Your task to perform on an android device: toggle javascript in the chrome app Image 0: 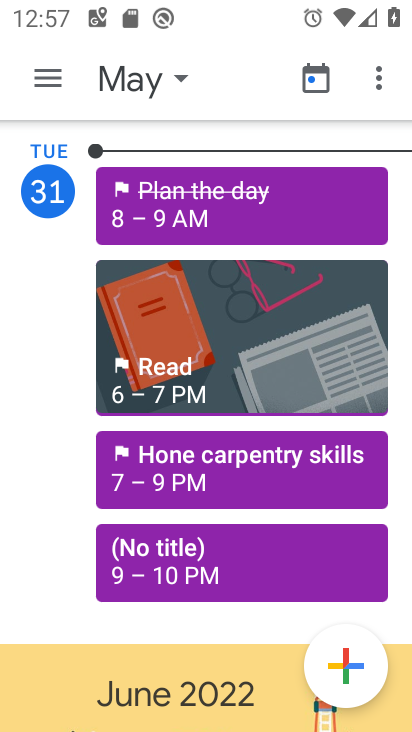
Step 0: press home button
Your task to perform on an android device: toggle javascript in the chrome app Image 1: 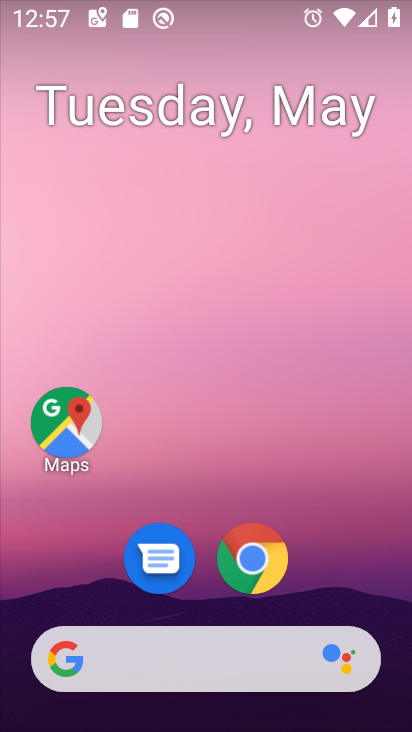
Step 1: click (260, 570)
Your task to perform on an android device: toggle javascript in the chrome app Image 2: 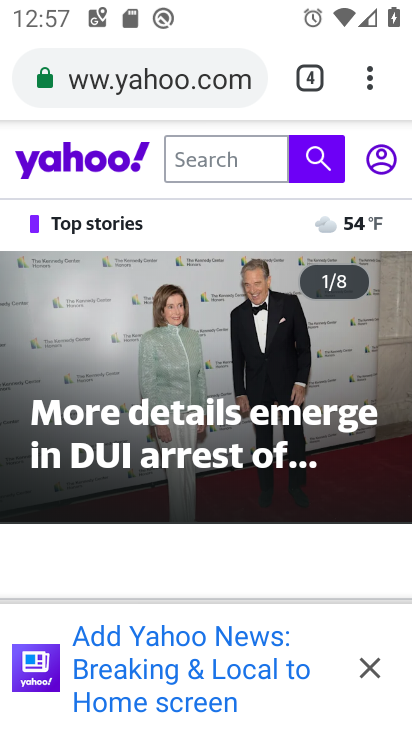
Step 2: click (374, 80)
Your task to perform on an android device: toggle javascript in the chrome app Image 3: 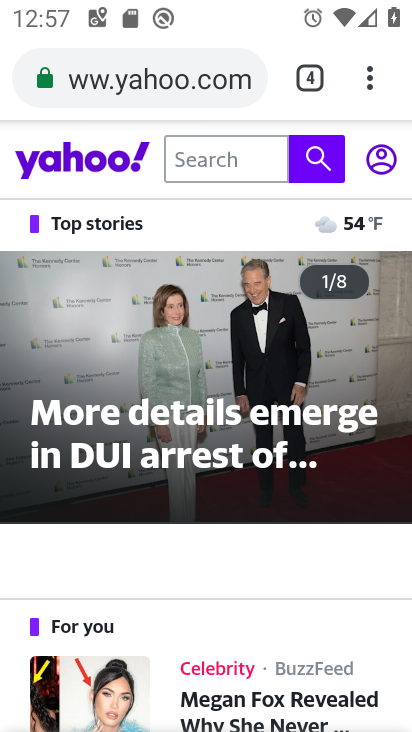
Step 3: drag from (374, 80) to (145, 624)
Your task to perform on an android device: toggle javascript in the chrome app Image 4: 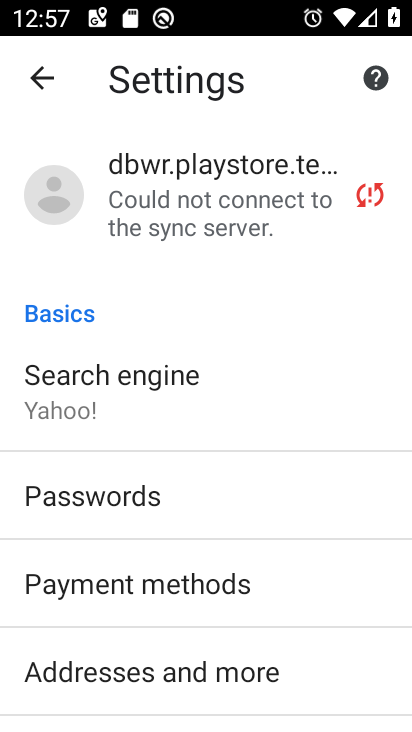
Step 4: drag from (224, 639) to (207, 255)
Your task to perform on an android device: toggle javascript in the chrome app Image 5: 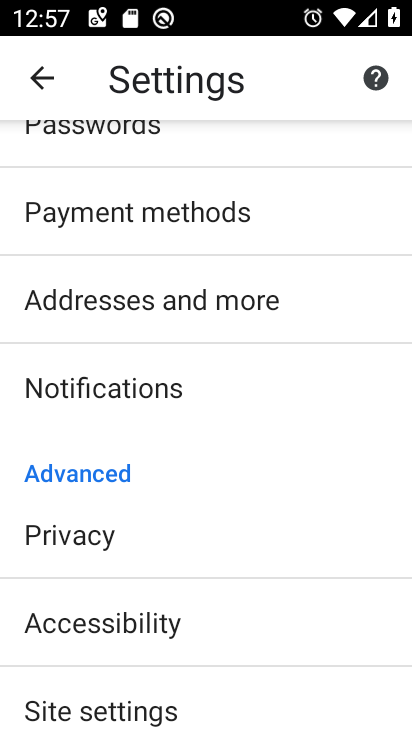
Step 5: drag from (246, 665) to (218, 366)
Your task to perform on an android device: toggle javascript in the chrome app Image 6: 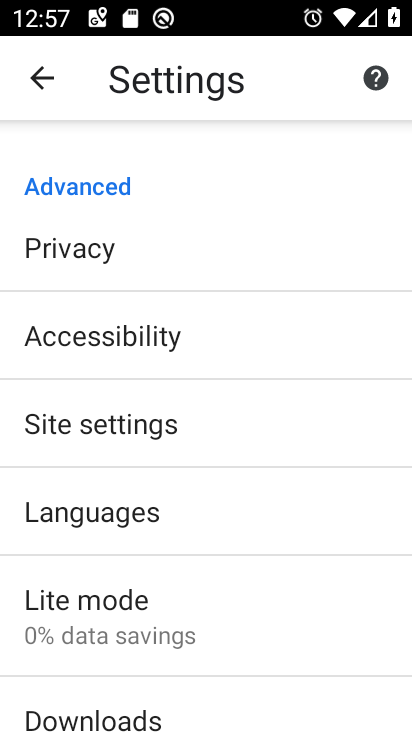
Step 6: click (210, 413)
Your task to perform on an android device: toggle javascript in the chrome app Image 7: 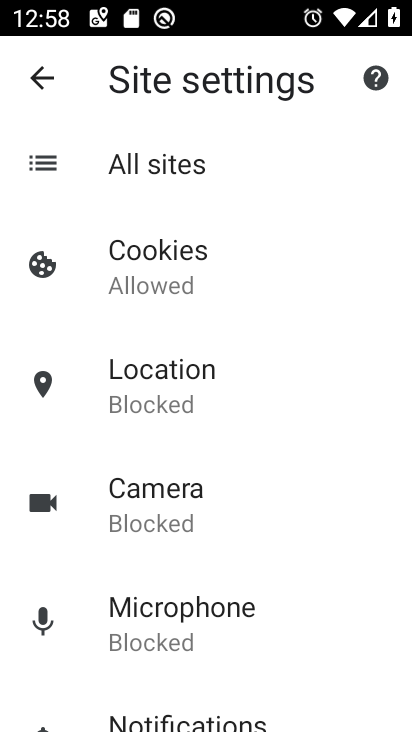
Step 7: drag from (254, 662) to (241, 223)
Your task to perform on an android device: toggle javascript in the chrome app Image 8: 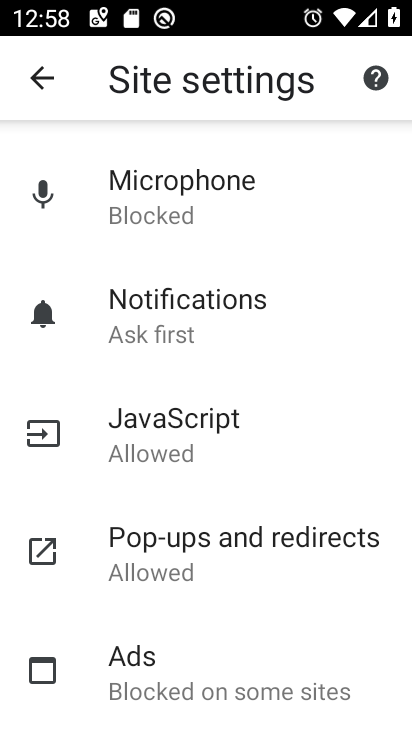
Step 8: click (211, 417)
Your task to perform on an android device: toggle javascript in the chrome app Image 9: 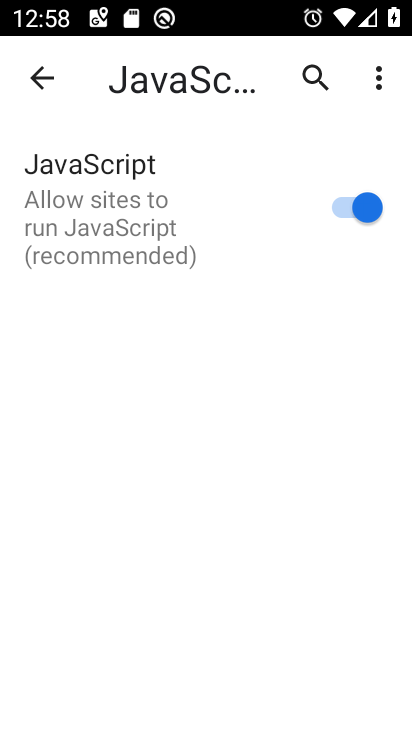
Step 9: click (350, 209)
Your task to perform on an android device: toggle javascript in the chrome app Image 10: 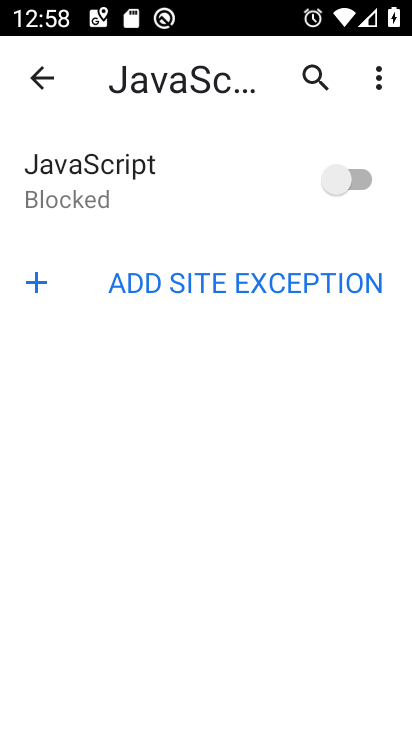
Step 10: task complete